Your task to perform on an android device: turn off airplane mode Image 0: 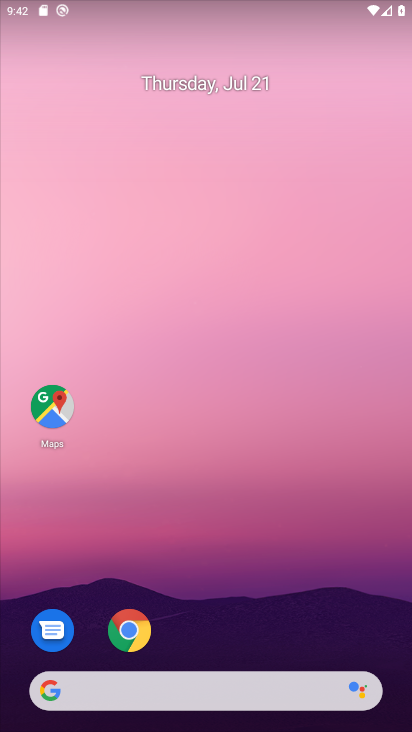
Step 0: drag from (301, 599) to (304, 336)
Your task to perform on an android device: turn off airplane mode Image 1: 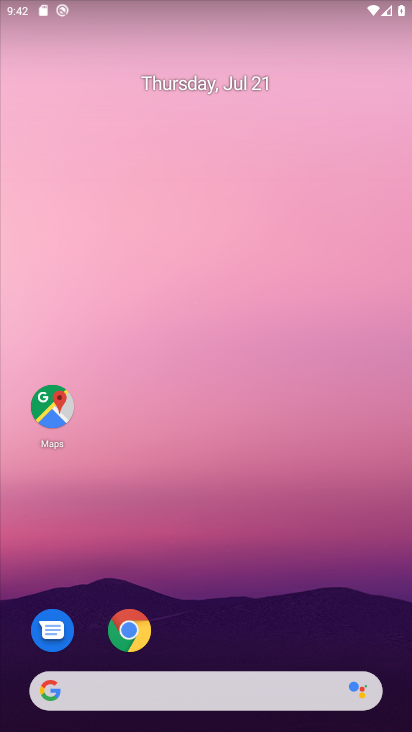
Step 1: drag from (287, 597) to (385, 10)
Your task to perform on an android device: turn off airplane mode Image 2: 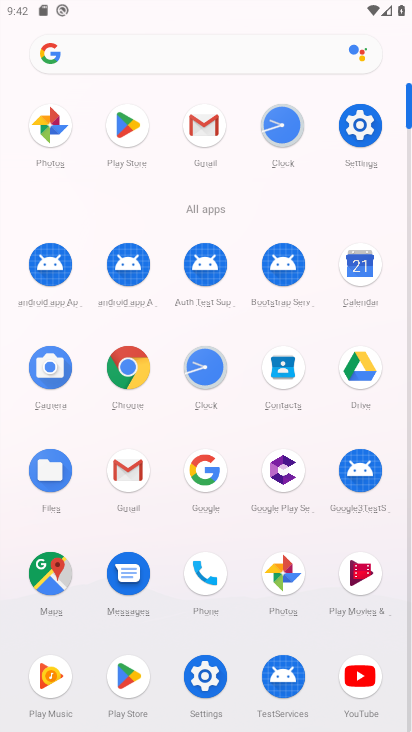
Step 2: click (355, 130)
Your task to perform on an android device: turn off airplane mode Image 3: 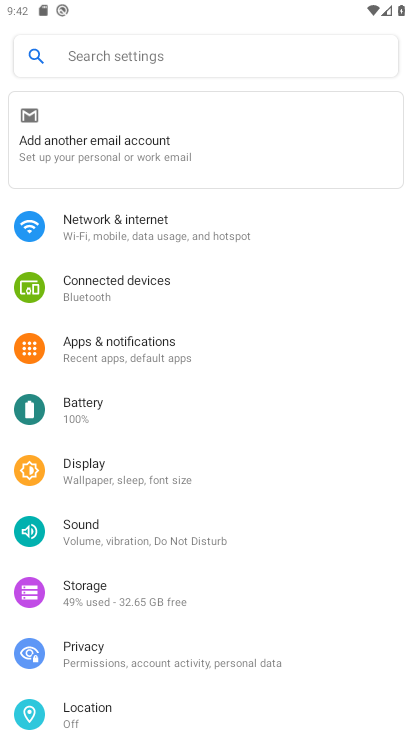
Step 3: click (179, 223)
Your task to perform on an android device: turn off airplane mode Image 4: 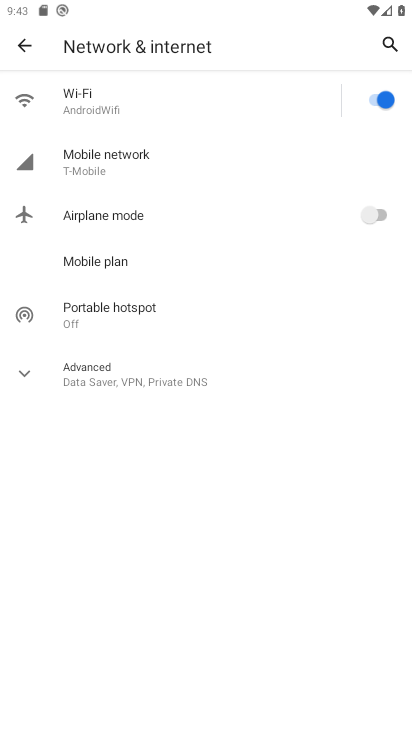
Step 4: task complete